Your task to perform on an android device: Open Google Maps and go to "Timeline" Image 0: 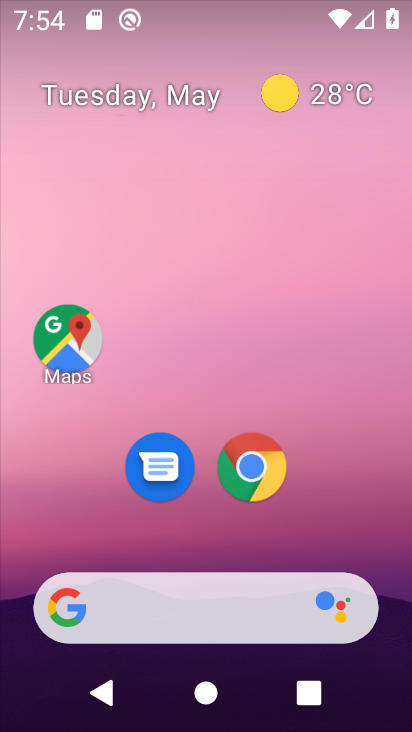
Step 0: click (45, 339)
Your task to perform on an android device: Open Google Maps and go to "Timeline" Image 1: 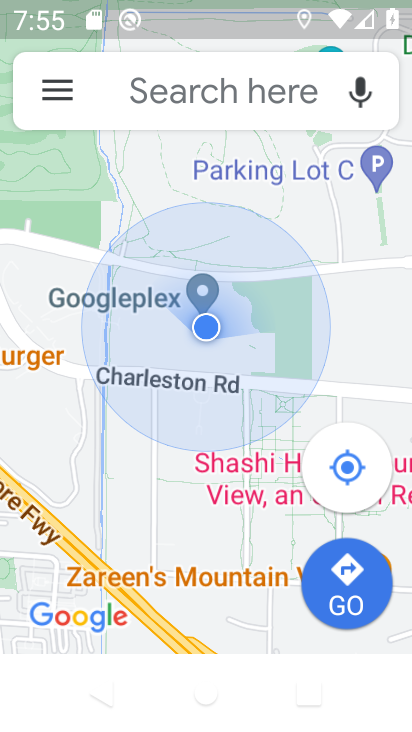
Step 1: click (43, 87)
Your task to perform on an android device: Open Google Maps and go to "Timeline" Image 2: 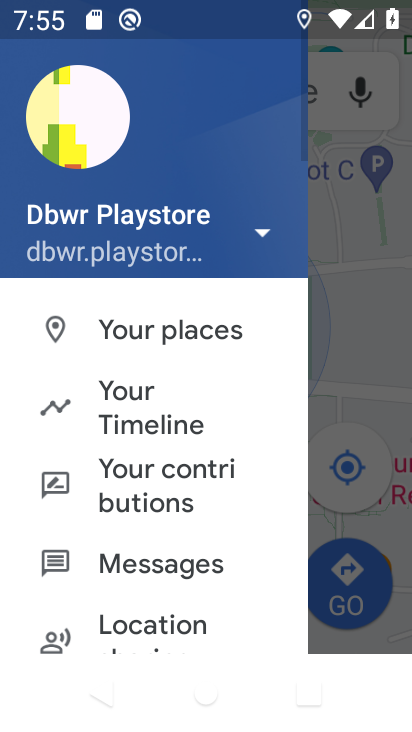
Step 2: click (92, 409)
Your task to perform on an android device: Open Google Maps and go to "Timeline" Image 3: 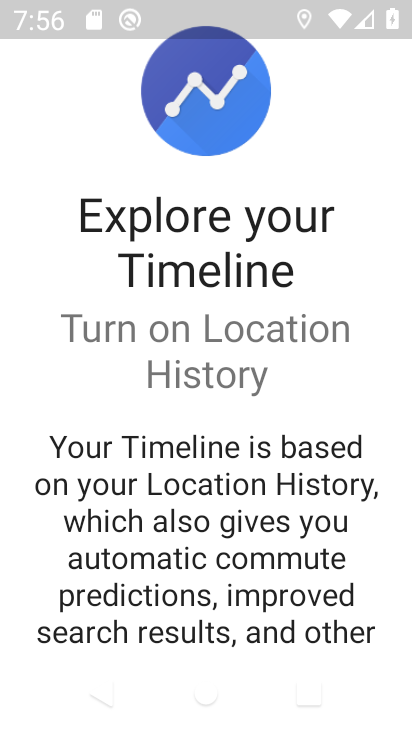
Step 3: click (405, 213)
Your task to perform on an android device: Open Google Maps and go to "Timeline" Image 4: 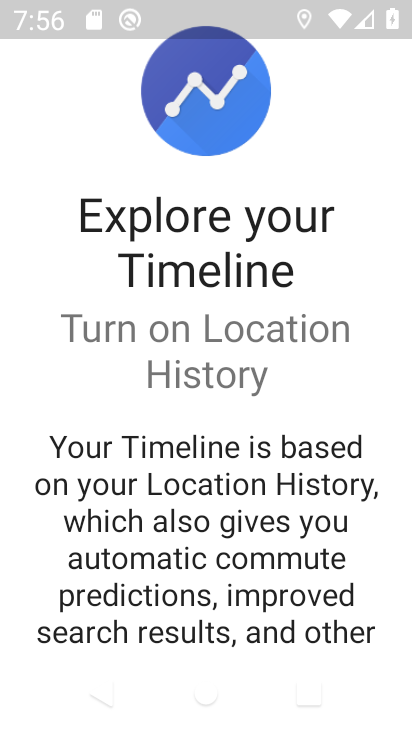
Step 4: task complete